Your task to perform on an android device: Open battery settings Image 0: 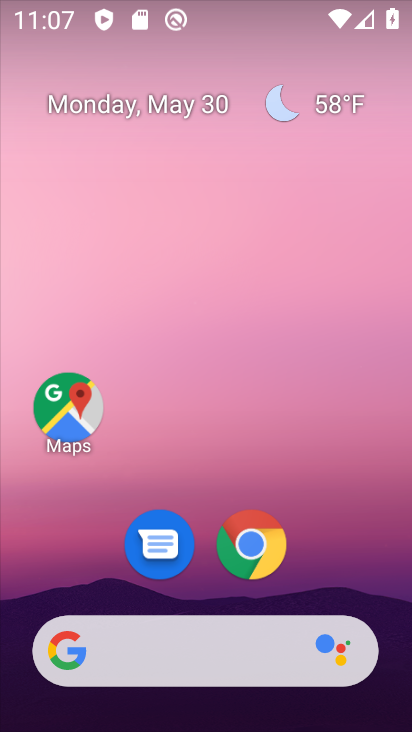
Step 0: drag from (324, 571) to (394, 19)
Your task to perform on an android device: Open battery settings Image 1: 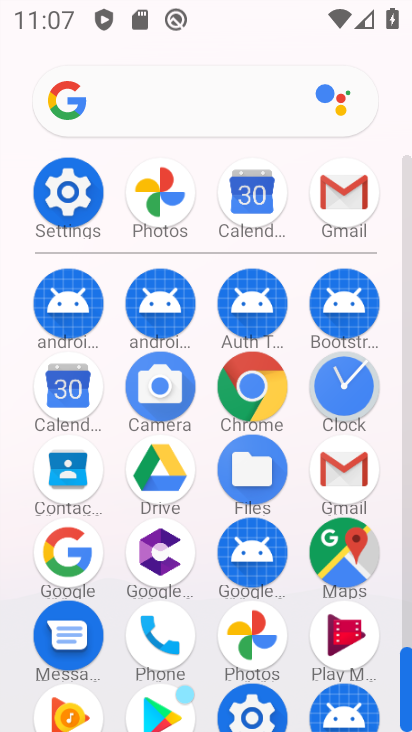
Step 1: click (95, 224)
Your task to perform on an android device: Open battery settings Image 2: 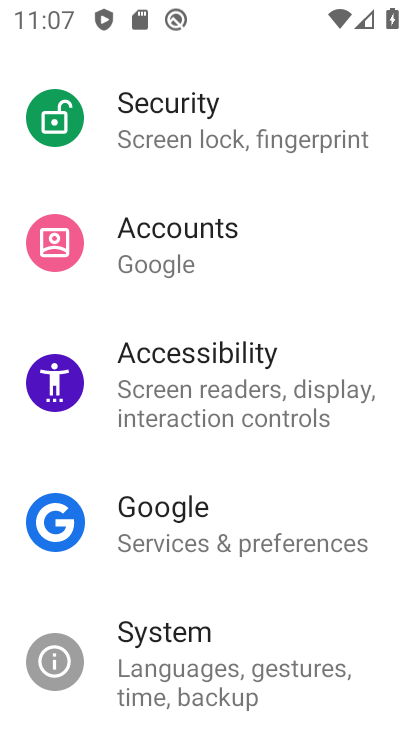
Step 2: drag from (299, 147) to (261, 527)
Your task to perform on an android device: Open battery settings Image 3: 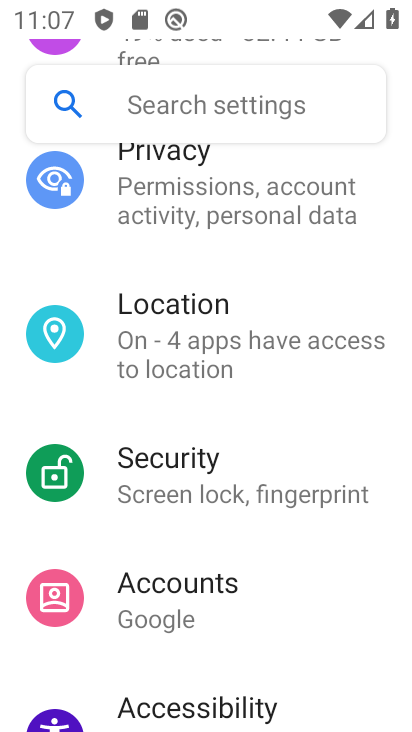
Step 3: drag from (270, 239) to (234, 584)
Your task to perform on an android device: Open battery settings Image 4: 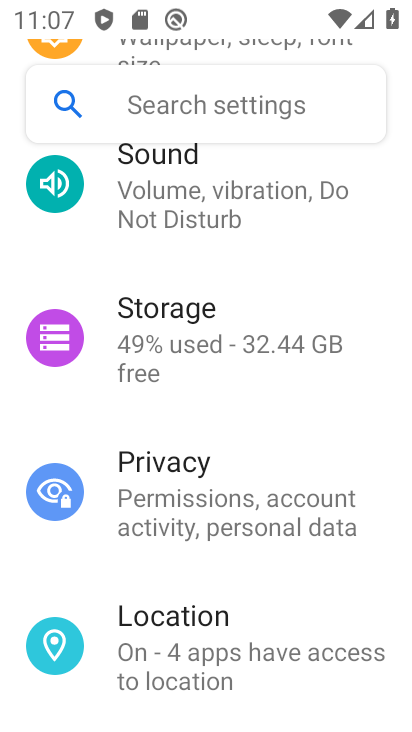
Step 4: drag from (269, 214) to (253, 640)
Your task to perform on an android device: Open battery settings Image 5: 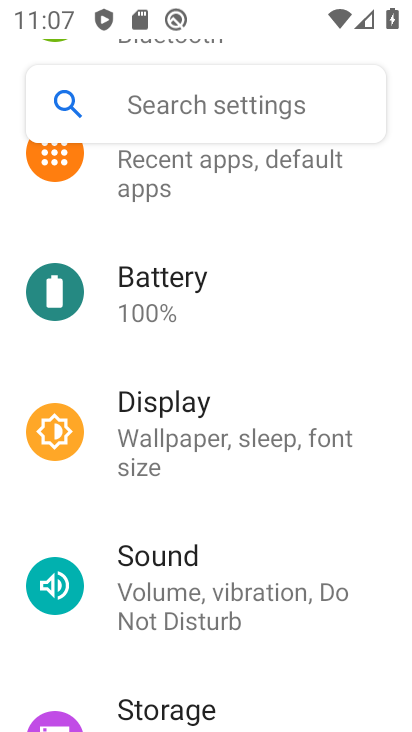
Step 5: click (236, 307)
Your task to perform on an android device: Open battery settings Image 6: 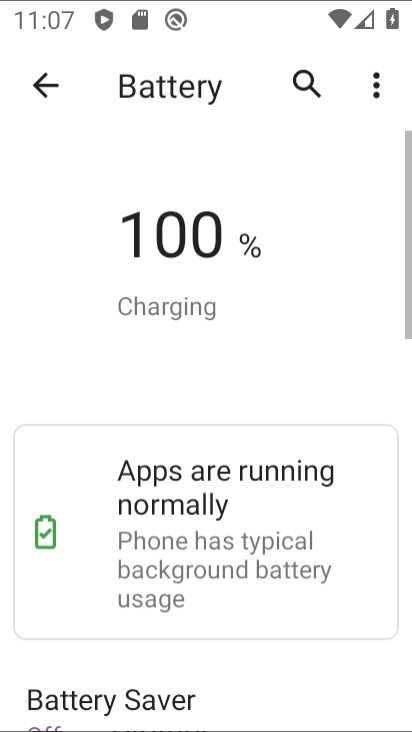
Step 6: task complete